Your task to perform on an android device: see tabs open on other devices in the chrome app Image 0: 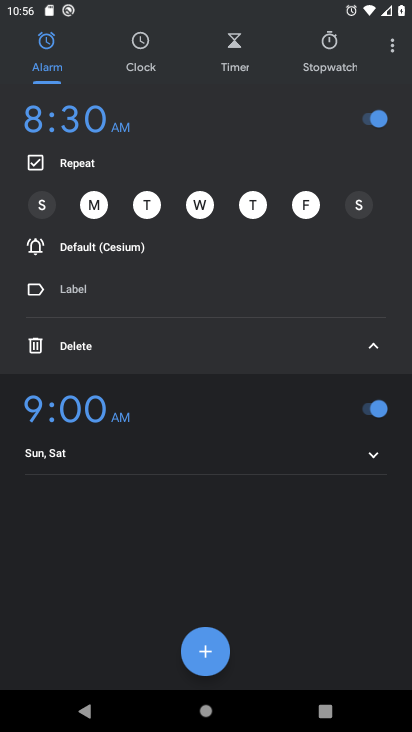
Step 0: press home button
Your task to perform on an android device: see tabs open on other devices in the chrome app Image 1: 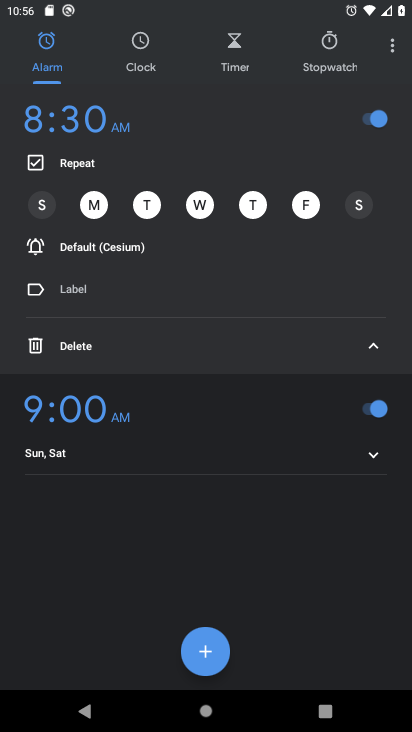
Step 1: press home button
Your task to perform on an android device: see tabs open on other devices in the chrome app Image 2: 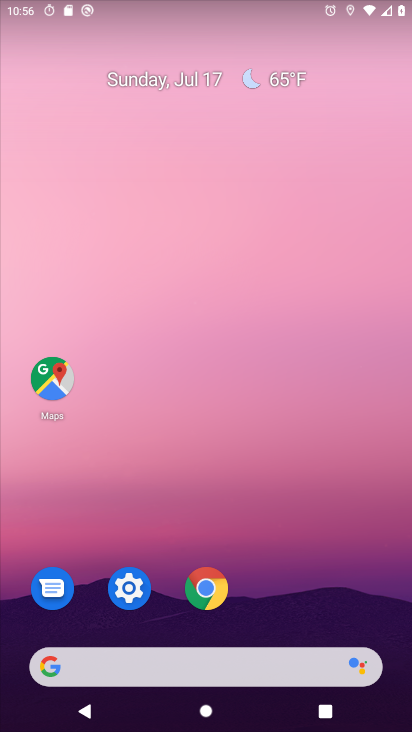
Step 2: drag from (280, 671) to (209, 23)
Your task to perform on an android device: see tabs open on other devices in the chrome app Image 3: 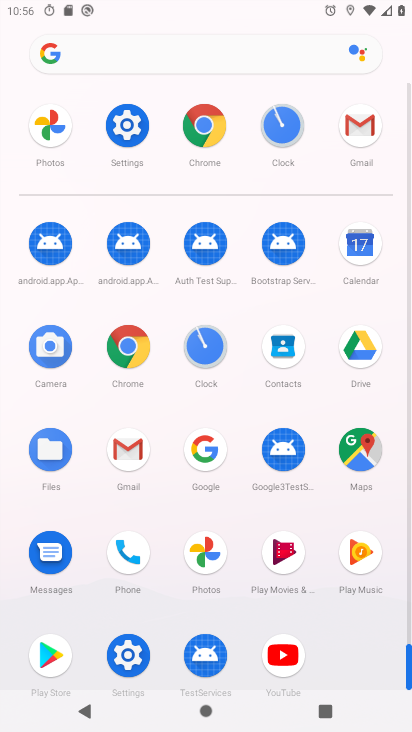
Step 3: click (197, 131)
Your task to perform on an android device: see tabs open on other devices in the chrome app Image 4: 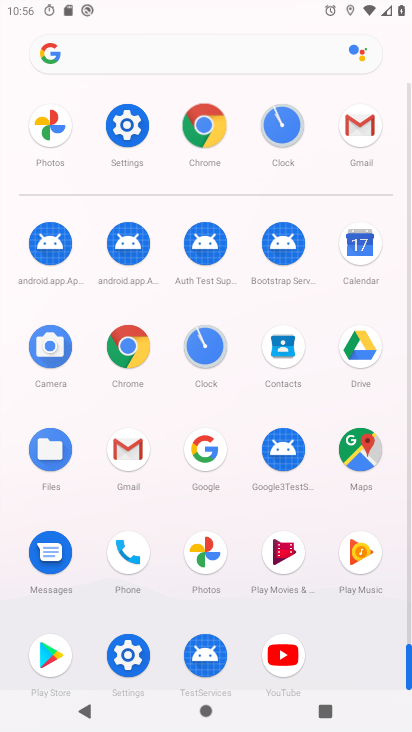
Step 4: click (197, 133)
Your task to perform on an android device: see tabs open on other devices in the chrome app Image 5: 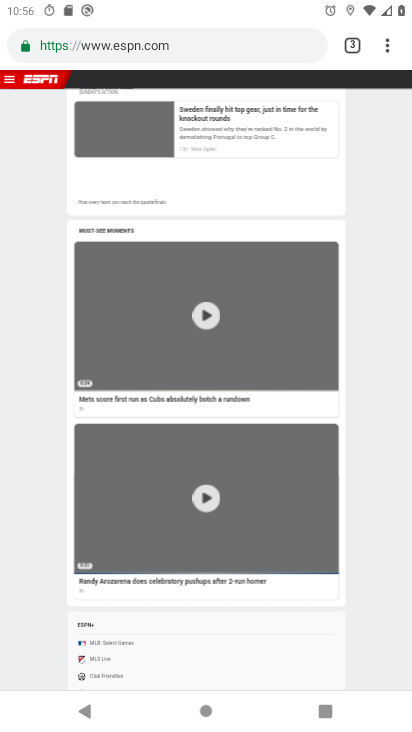
Step 5: drag from (388, 47) to (218, 544)
Your task to perform on an android device: see tabs open on other devices in the chrome app Image 6: 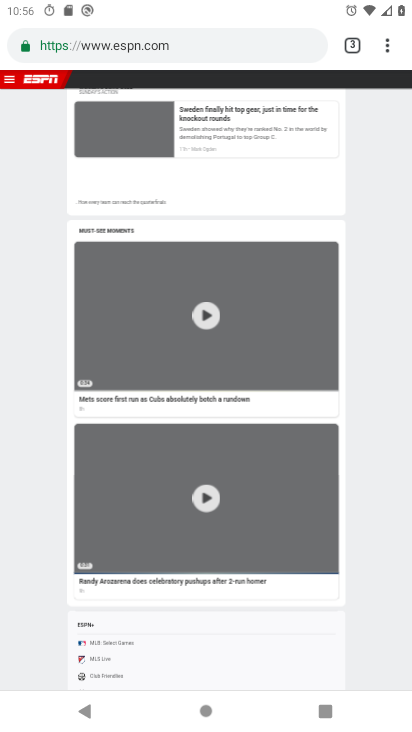
Step 6: click (220, 520)
Your task to perform on an android device: see tabs open on other devices in the chrome app Image 7: 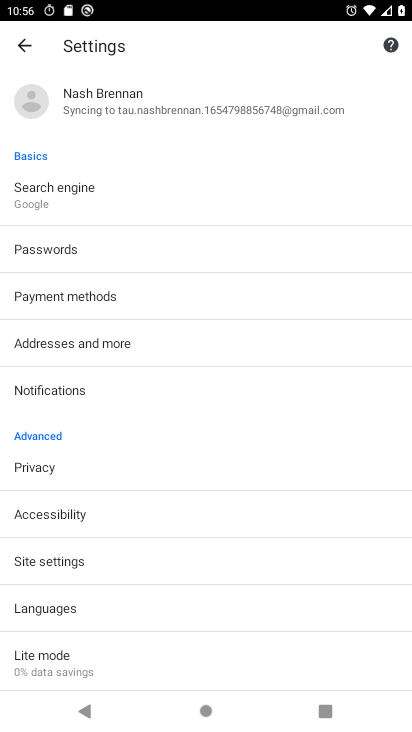
Step 7: click (20, 46)
Your task to perform on an android device: see tabs open on other devices in the chrome app Image 8: 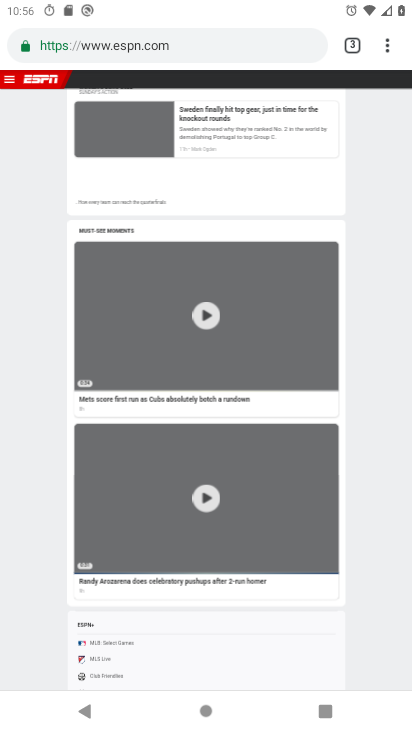
Step 8: drag from (387, 44) to (218, 213)
Your task to perform on an android device: see tabs open on other devices in the chrome app Image 9: 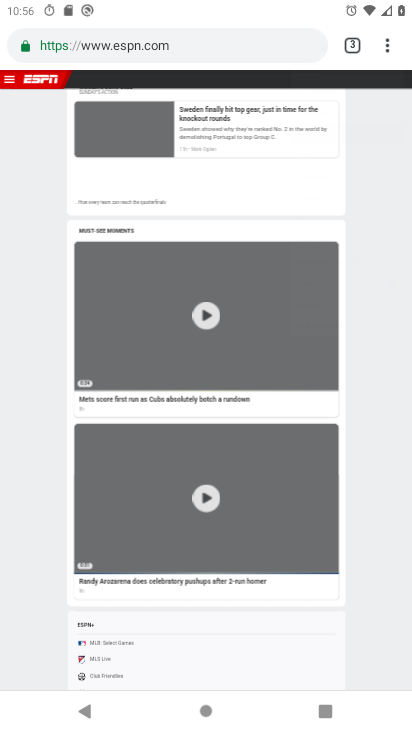
Step 9: click (218, 213)
Your task to perform on an android device: see tabs open on other devices in the chrome app Image 10: 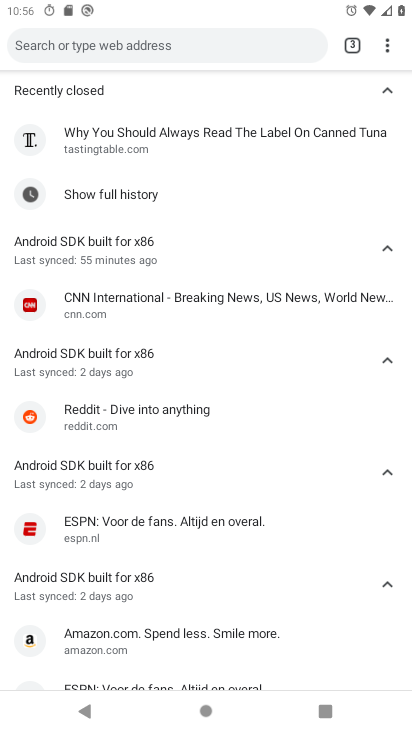
Step 10: task complete